Your task to perform on an android device: toggle airplane mode Image 0: 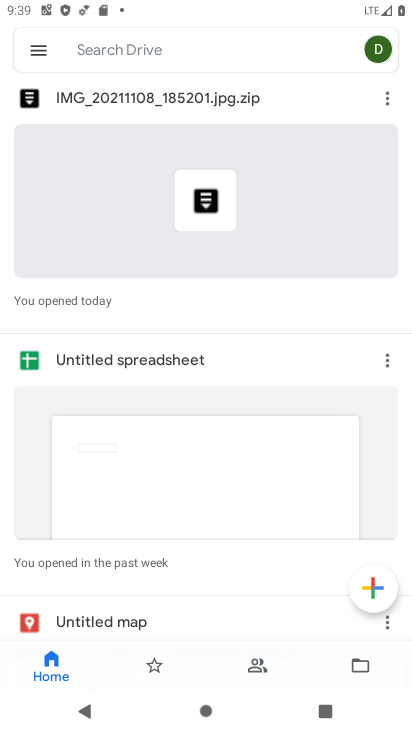
Step 0: press home button
Your task to perform on an android device: toggle airplane mode Image 1: 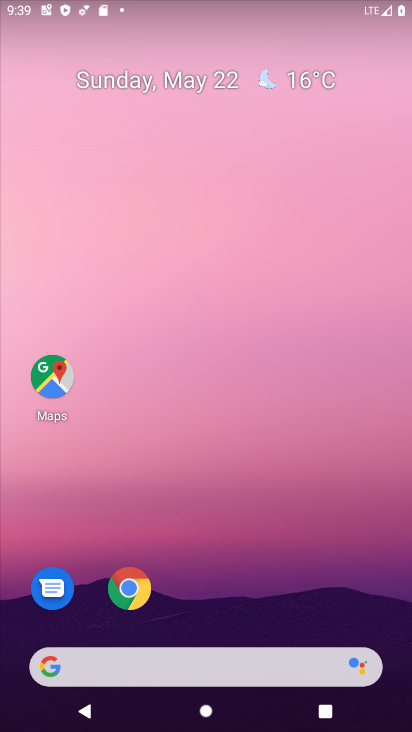
Step 1: drag from (246, 632) to (266, 226)
Your task to perform on an android device: toggle airplane mode Image 2: 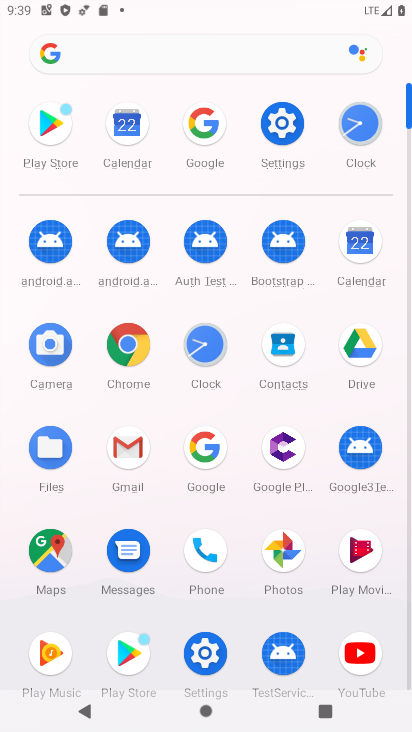
Step 2: click (279, 125)
Your task to perform on an android device: toggle airplane mode Image 3: 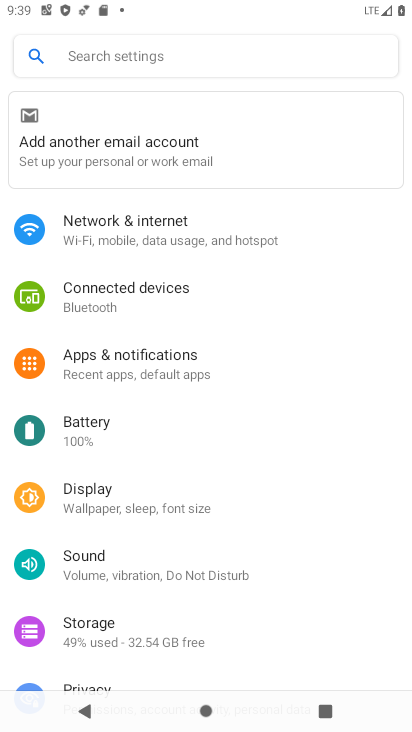
Step 3: click (161, 232)
Your task to perform on an android device: toggle airplane mode Image 4: 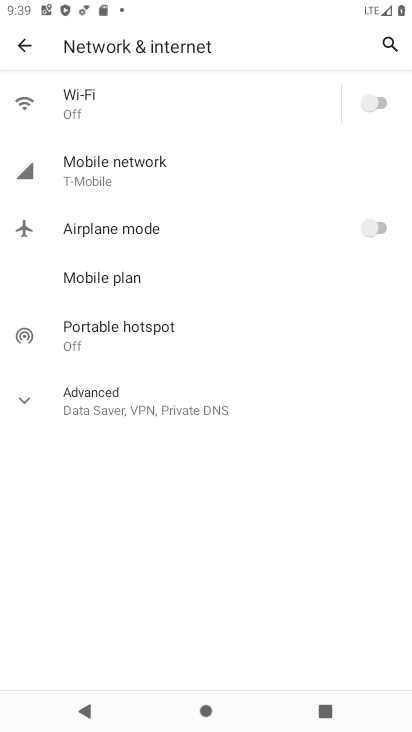
Step 4: click (381, 218)
Your task to perform on an android device: toggle airplane mode Image 5: 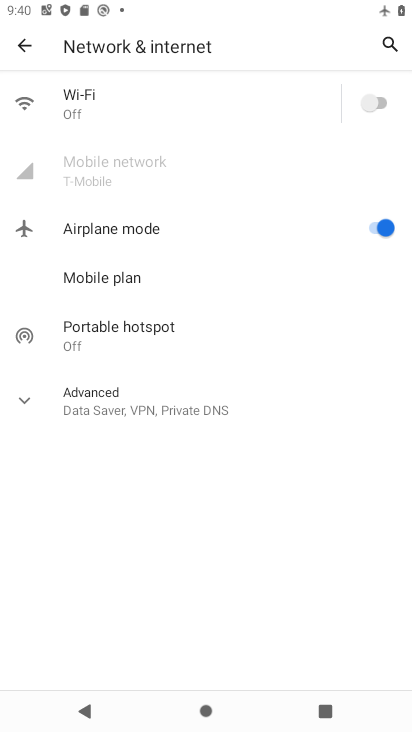
Step 5: task complete